Your task to perform on an android device: move an email to a new category in the gmail app Image 0: 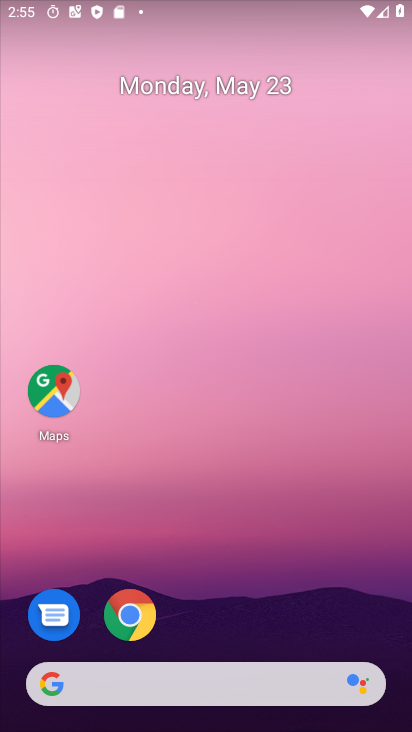
Step 0: drag from (272, 649) to (313, 6)
Your task to perform on an android device: move an email to a new category in the gmail app Image 1: 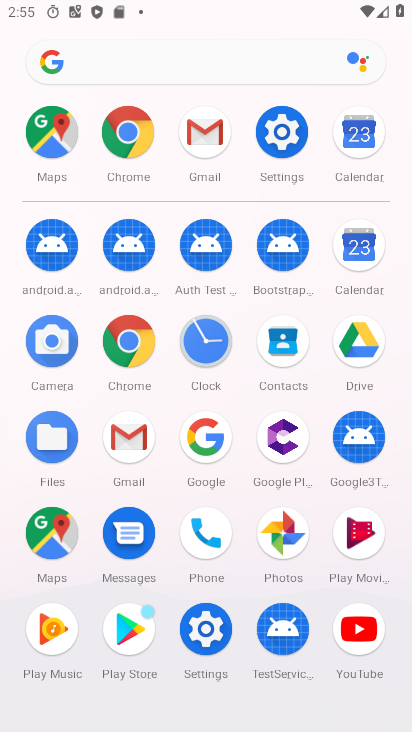
Step 1: click (205, 139)
Your task to perform on an android device: move an email to a new category in the gmail app Image 2: 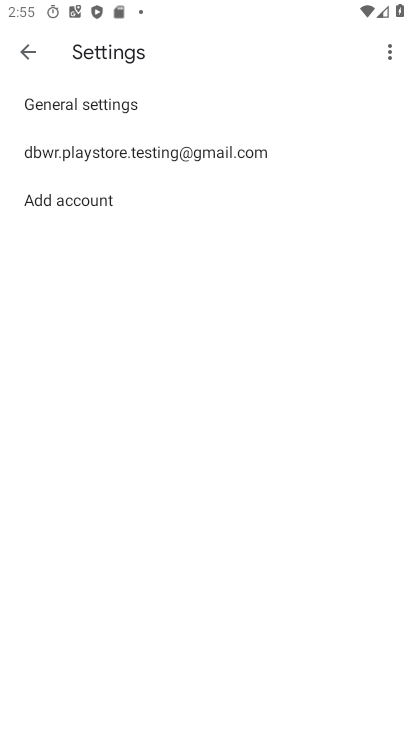
Step 2: click (32, 53)
Your task to perform on an android device: move an email to a new category in the gmail app Image 3: 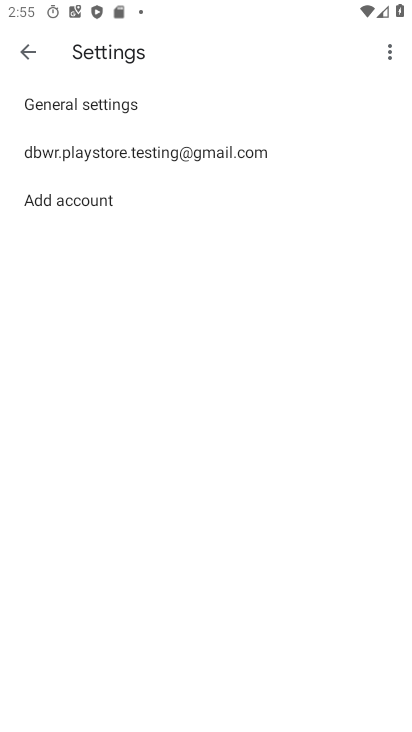
Step 3: click (31, 53)
Your task to perform on an android device: move an email to a new category in the gmail app Image 4: 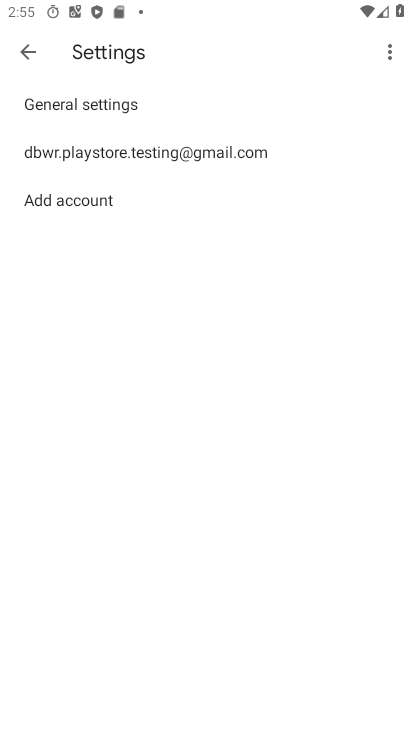
Step 4: click (31, 53)
Your task to perform on an android device: move an email to a new category in the gmail app Image 5: 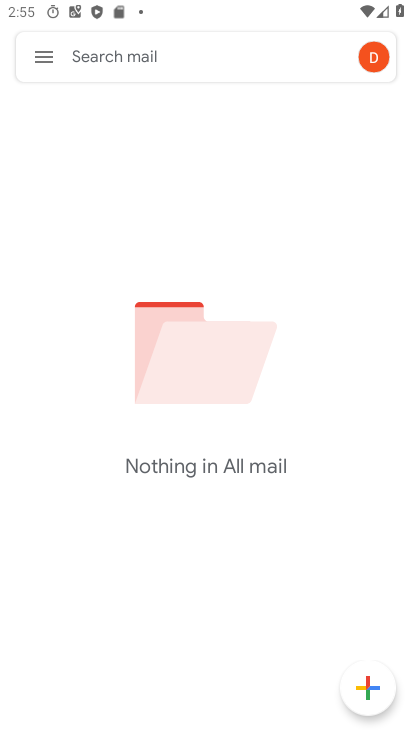
Step 5: task complete